Your task to perform on an android device: turn off javascript in the chrome app Image 0: 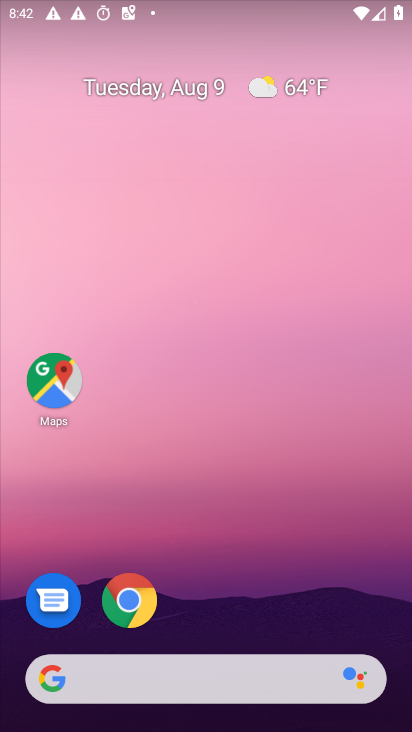
Step 0: press home button
Your task to perform on an android device: turn off javascript in the chrome app Image 1: 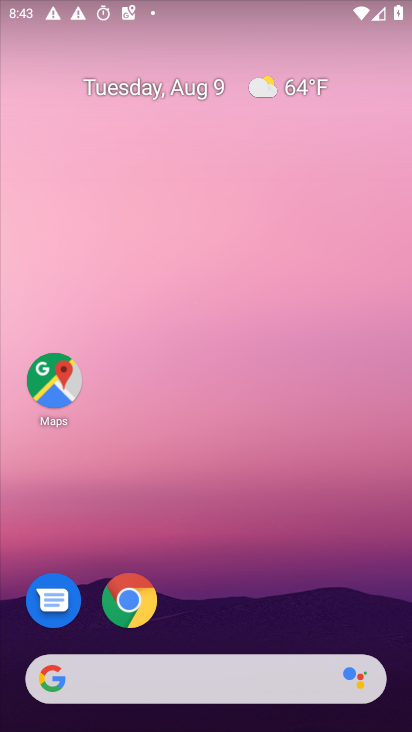
Step 1: click (135, 604)
Your task to perform on an android device: turn off javascript in the chrome app Image 2: 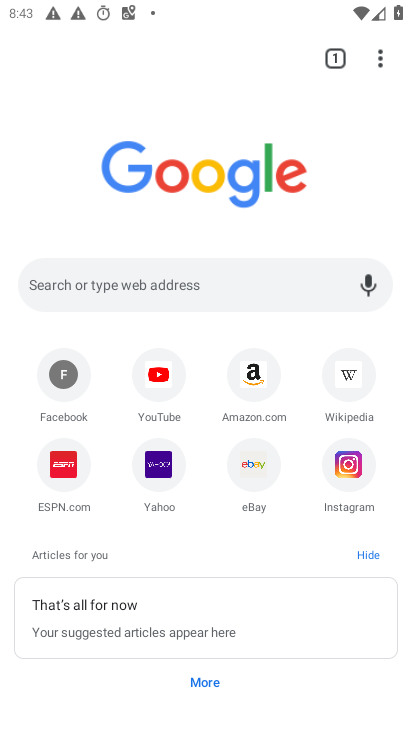
Step 2: drag from (382, 58) to (147, 495)
Your task to perform on an android device: turn off javascript in the chrome app Image 3: 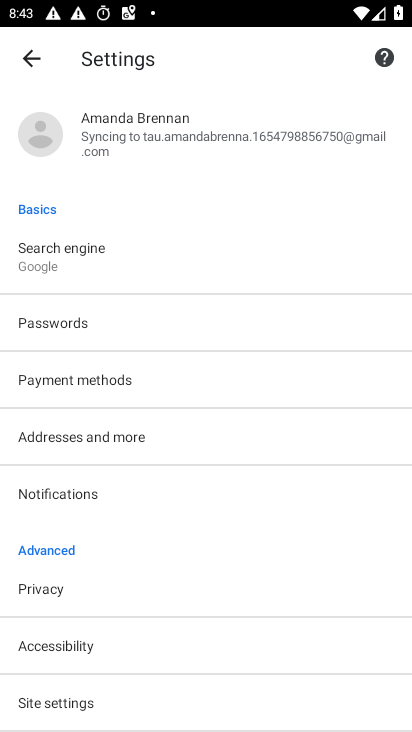
Step 3: click (49, 705)
Your task to perform on an android device: turn off javascript in the chrome app Image 4: 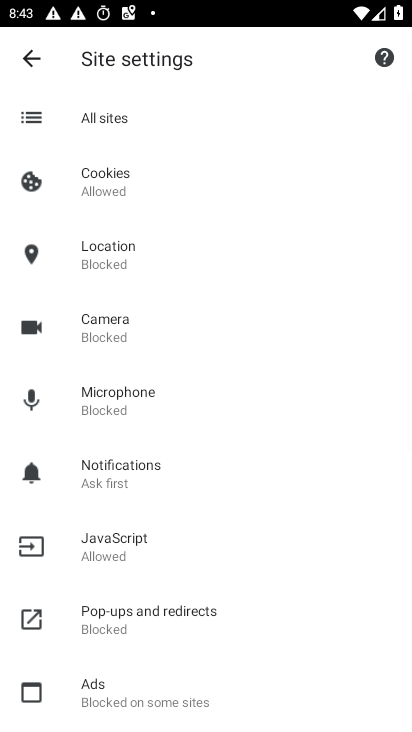
Step 4: click (92, 537)
Your task to perform on an android device: turn off javascript in the chrome app Image 5: 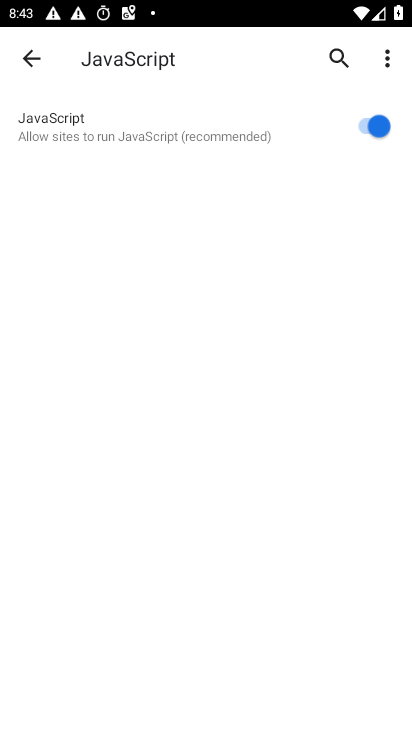
Step 5: click (377, 130)
Your task to perform on an android device: turn off javascript in the chrome app Image 6: 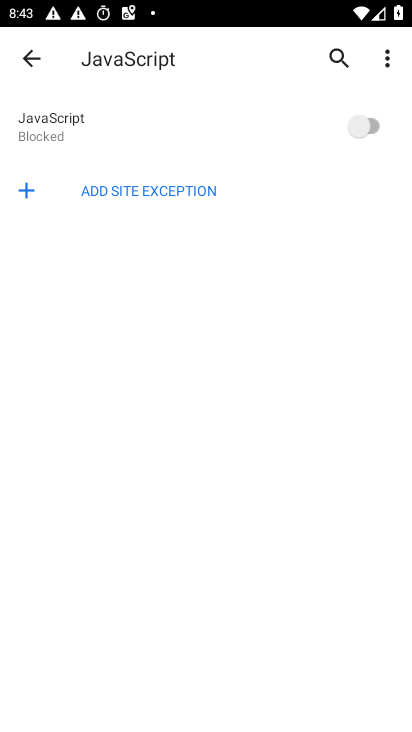
Step 6: task complete